Your task to perform on an android device: change notification settings in the gmail app Image 0: 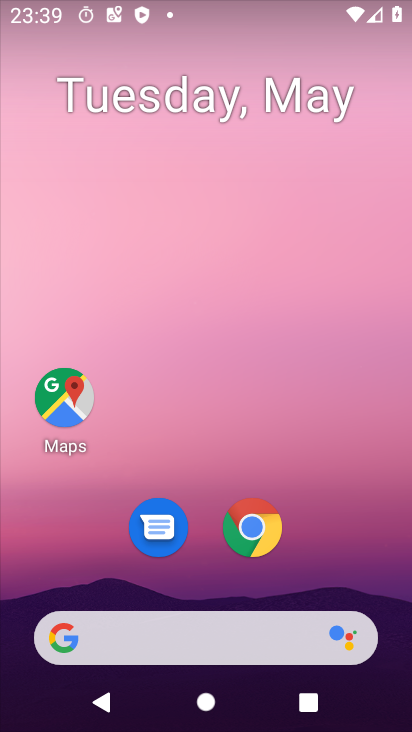
Step 0: click (409, 520)
Your task to perform on an android device: change notification settings in the gmail app Image 1: 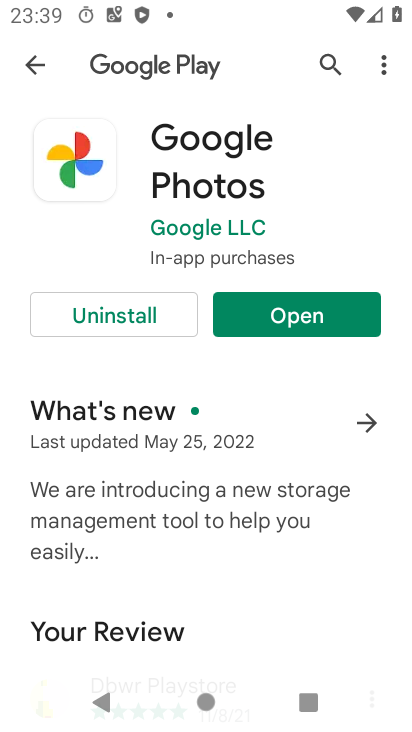
Step 1: press home button
Your task to perform on an android device: change notification settings in the gmail app Image 2: 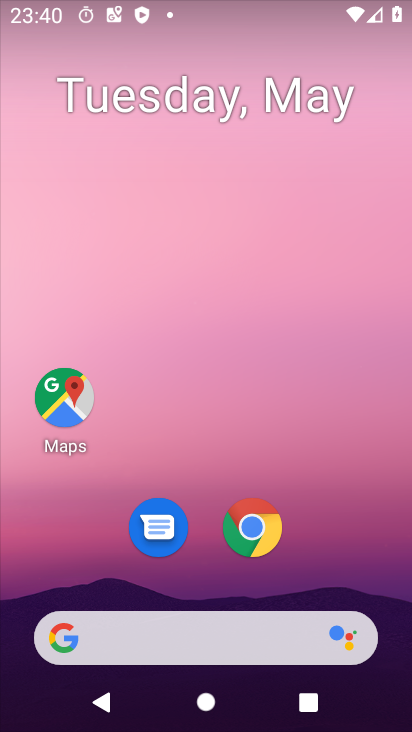
Step 2: drag from (198, 583) to (263, 281)
Your task to perform on an android device: change notification settings in the gmail app Image 3: 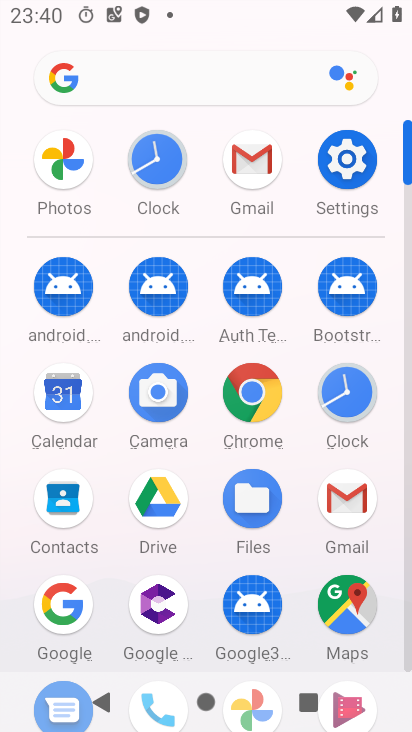
Step 3: click (357, 502)
Your task to perform on an android device: change notification settings in the gmail app Image 4: 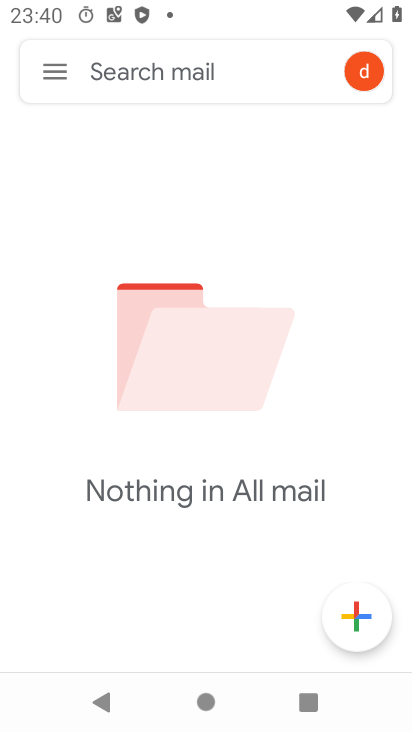
Step 4: click (36, 61)
Your task to perform on an android device: change notification settings in the gmail app Image 5: 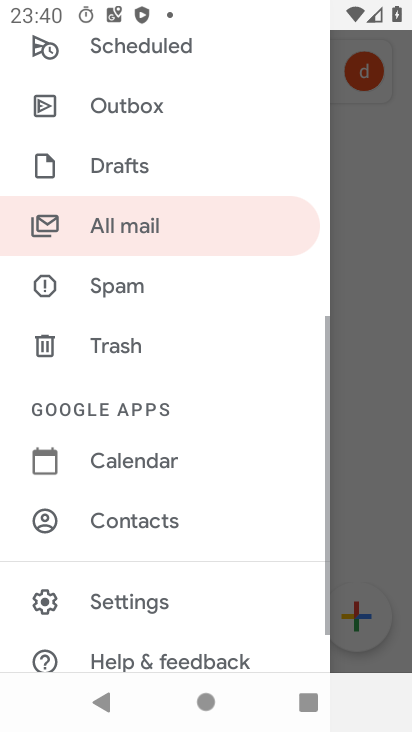
Step 5: drag from (159, 539) to (205, 128)
Your task to perform on an android device: change notification settings in the gmail app Image 6: 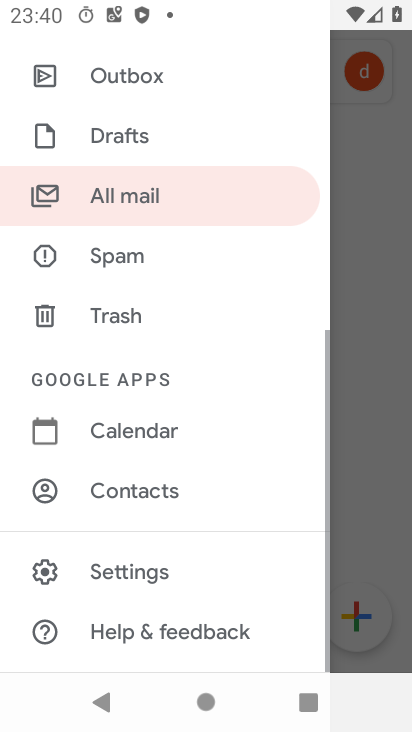
Step 6: click (153, 561)
Your task to perform on an android device: change notification settings in the gmail app Image 7: 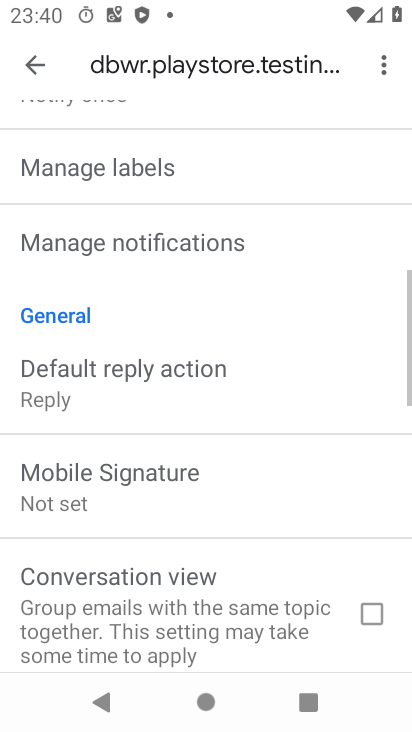
Step 7: click (166, 223)
Your task to perform on an android device: change notification settings in the gmail app Image 8: 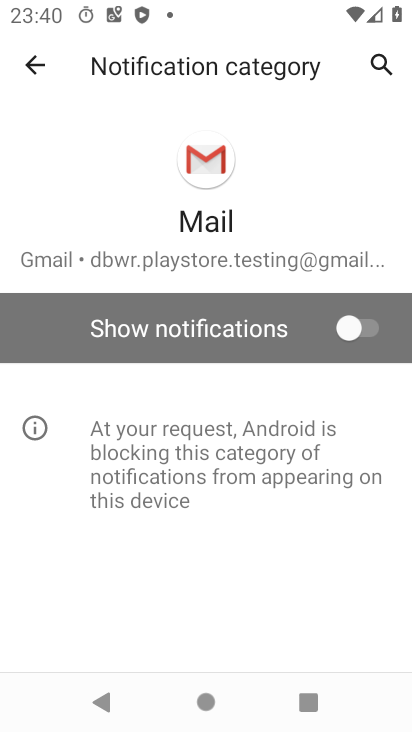
Step 8: click (246, 294)
Your task to perform on an android device: change notification settings in the gmail app Image 9: 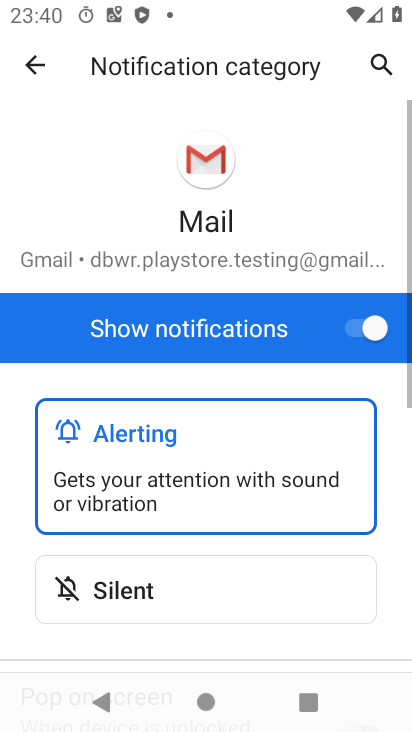
Step 9: task complete